Your task to perform on an android device: Go to CNN.com Image 0: 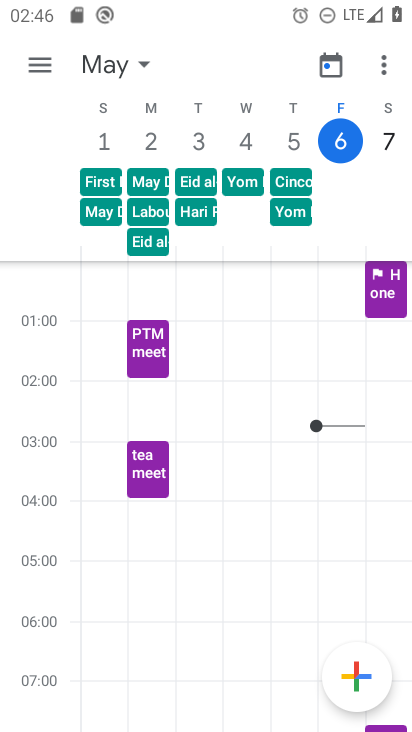
Step 0: drag from (267, 621) to (273, 315)
Your task to perform on an android device: Go to CNN.com Image 1: 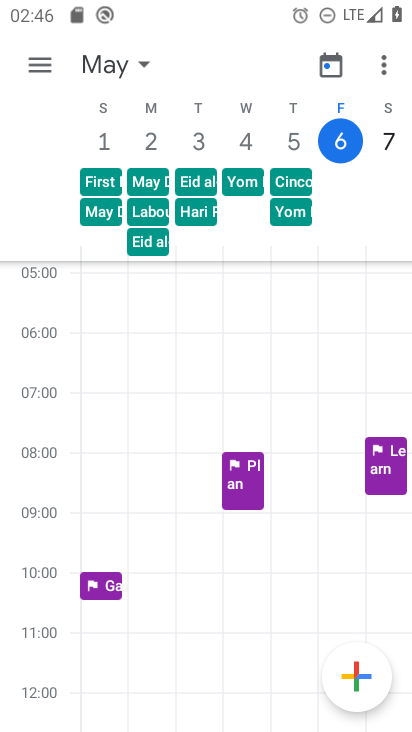
Step 1: press home button
Your task to perform on an android device: Go to CNN.com Image 2: 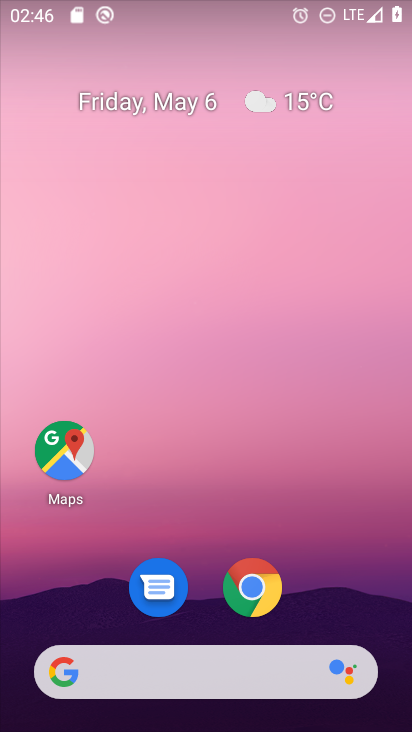
Step 2: click (260, 592)
Your task to perform on an android device: Go to CNN.com Image 3: 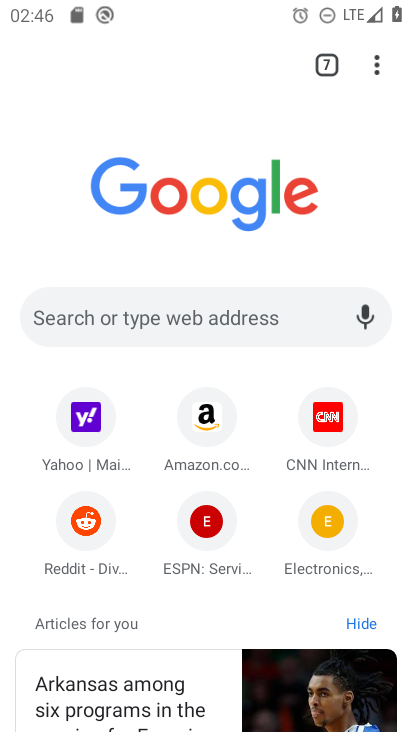
Step 3: click (339, 425)
Your task to perform on an android device: Go to CNN.com Image 4: 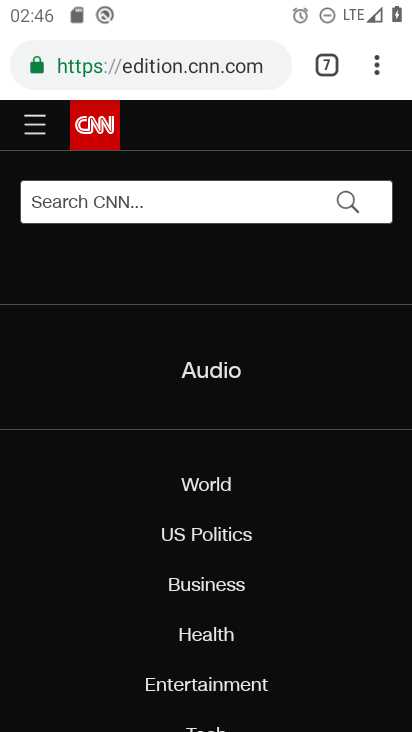
Step 4: task complete